Your task to perform on an android device: What's the weather today? Image 0: 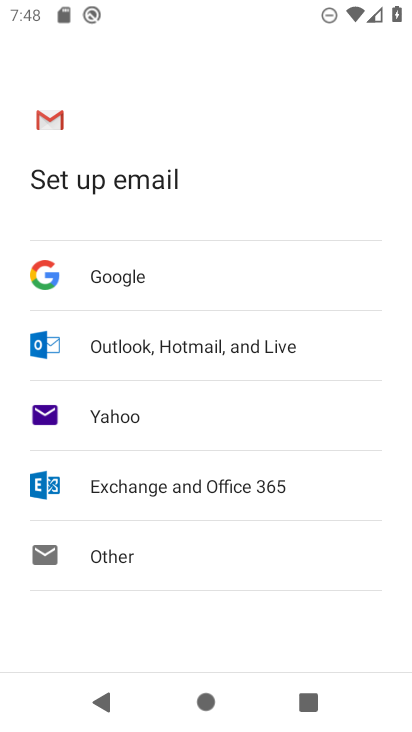
Step 0: press home button
Your task to perform on an android device: What's the weather today? Image 1: 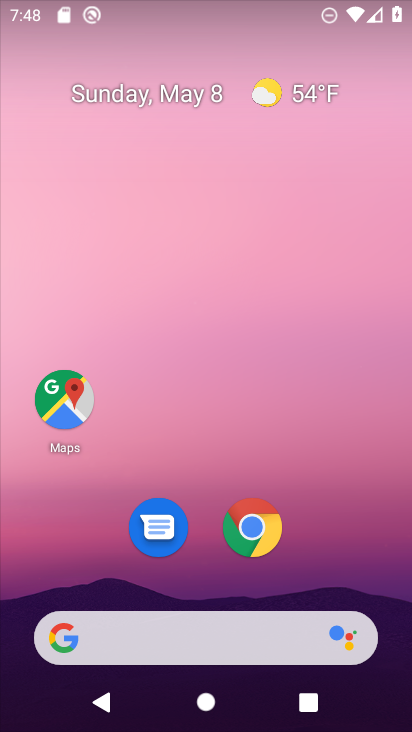
Step 1: click (318, 96)
Your task to perform on an android device: What's the weather today? Image 2: 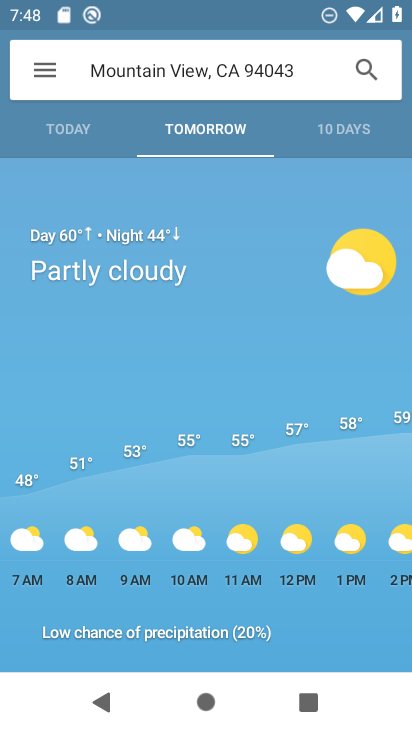
Step 2: click (78, 125)
Your task to perform on an android device: What's the weather today? Image 3: 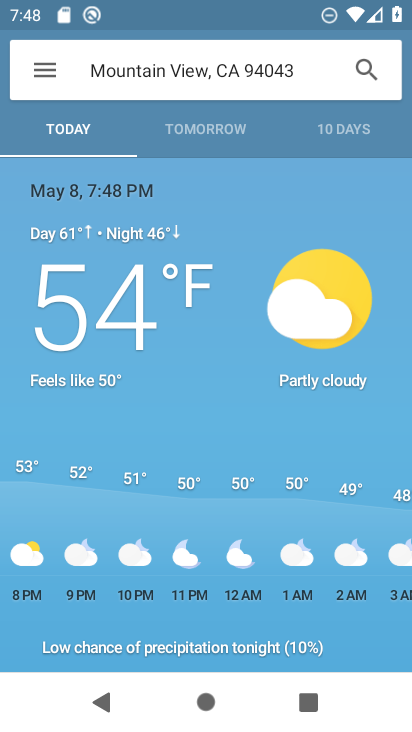
Step 3: task complete